Your task to perform on an android device: Check the news Image 0: 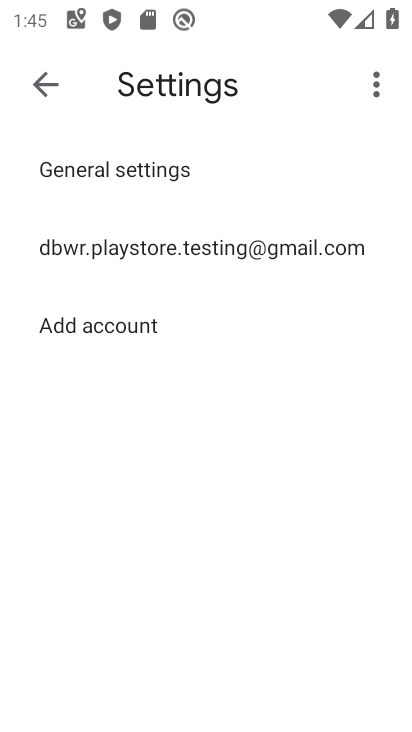
Step 0: press home button
Your task to perform on an android device: Check the news Image 1: 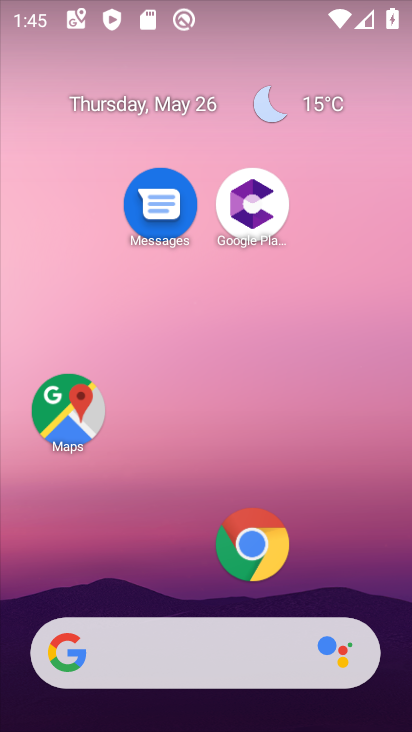
Step 1: click (177, 662)
Your task to perform on an android device: Check the news Image 2: 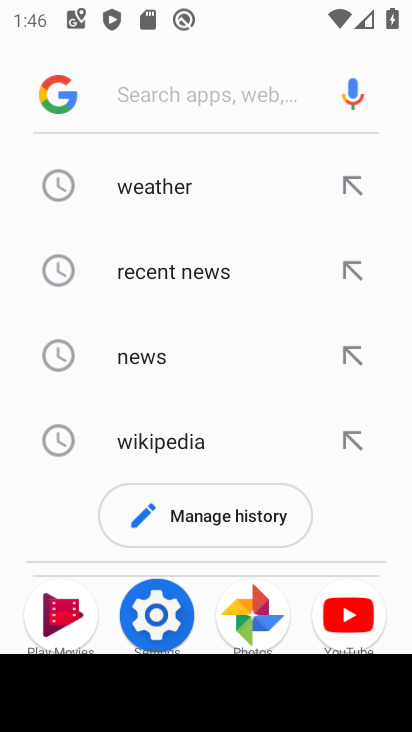
Step 2: click (160, 347)
Your task to perform on an android device: Check the news Image 3: 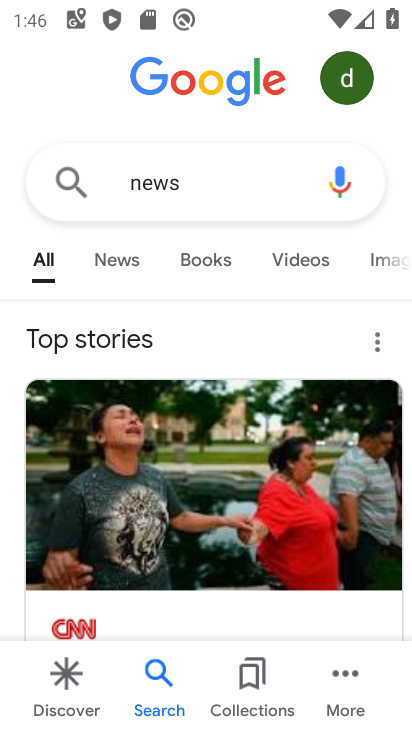
Step 3: task complete